Your task to perform on an android device: Go to network settings Image 0: 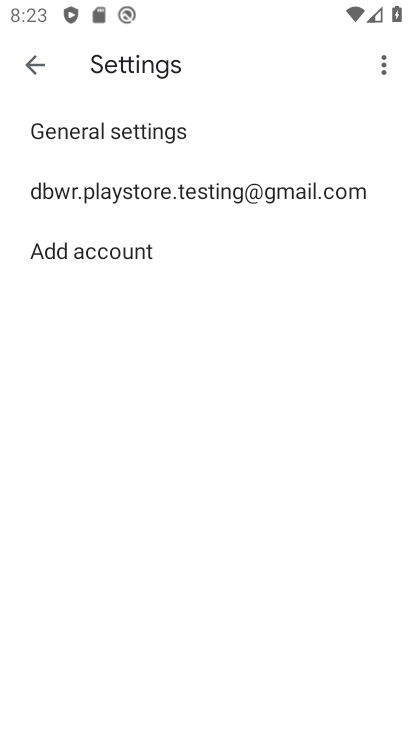
Step 0: press home button
Your task to perform on an android device: Go to network settings Image 1: 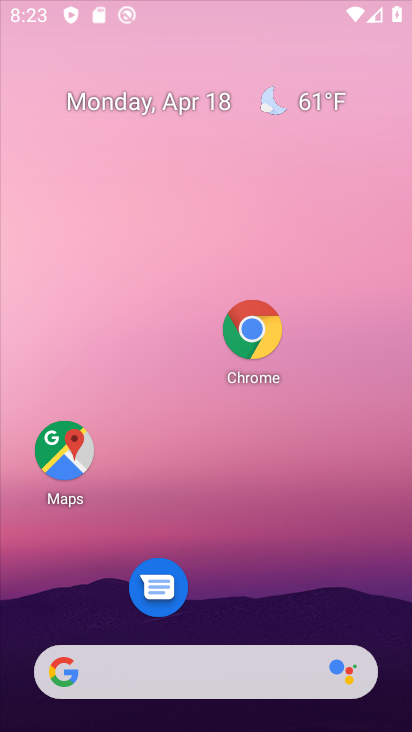
Step 1: drag from (237, 543) to (239, 209)
Your task to perform on an android device: Go to network settings Image 2: 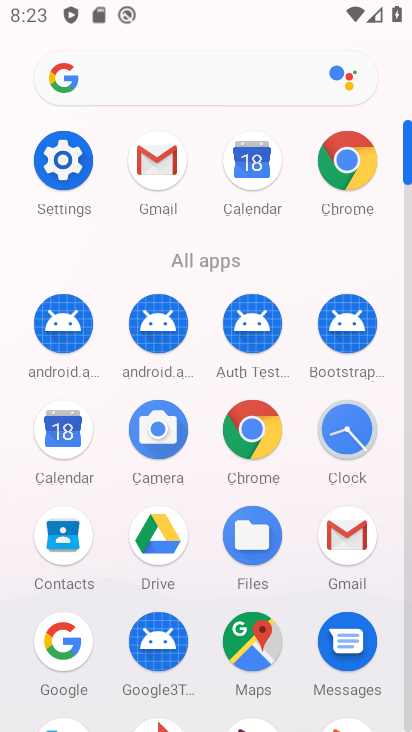
Step 2: click (59, 140)
Your task to perform on an android device: Go to network settings Image 3: 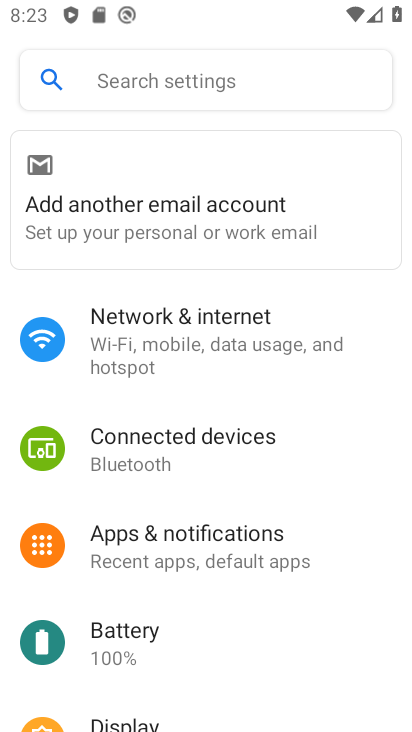
Step 3: click (153, 315)
Your task to perform on an android device: Go to network settings Image 4: 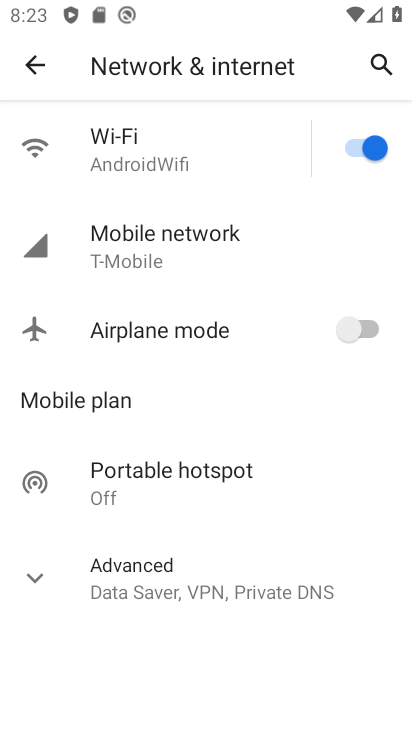
Step 4: click (178, 233)
Your task to perform on an android device: Go to network settings Image 5: 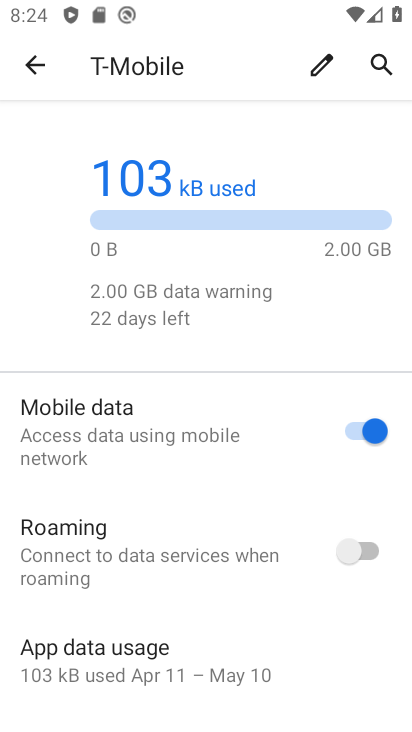
Step 5: task complete